Your task to perform on an android device: Open calendar and show me the third week of next month Image 0: 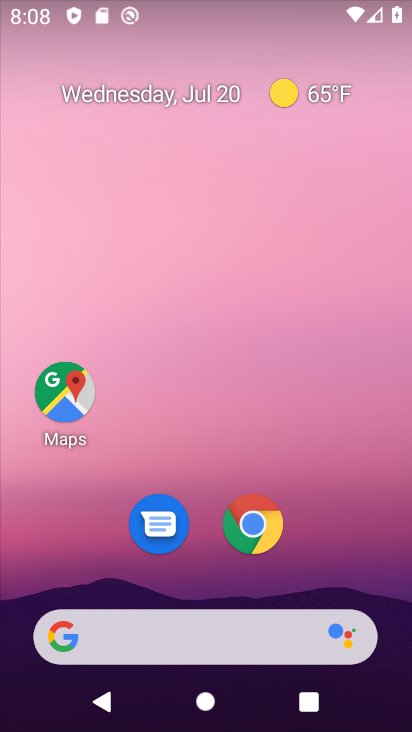
Step 0: drag from (349, 571) to (319, 67)
Your task to perform on an android device: Open calendar and show me the third week of next month Image 1: 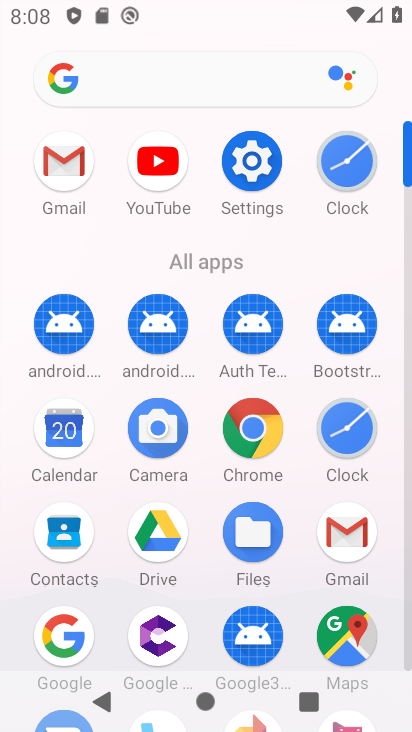
Step 1: click (66, 426)
Your task to perform on an android device: Open calendar and show me the third week of next month Image 2: 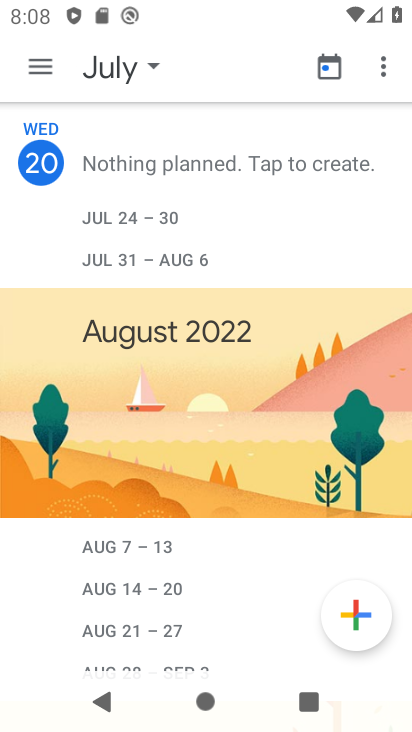
Step 2: click (44, 69)
Your task to perform on an android device: Open calendar and show me the third week of next month Image 3: 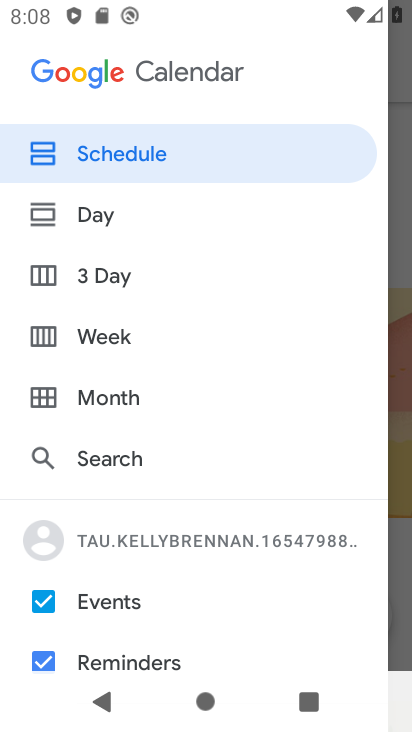
Step 3: click (43, 396)
Your task to perform on an android device: Open calendar and show me the third week of next month Image 4: 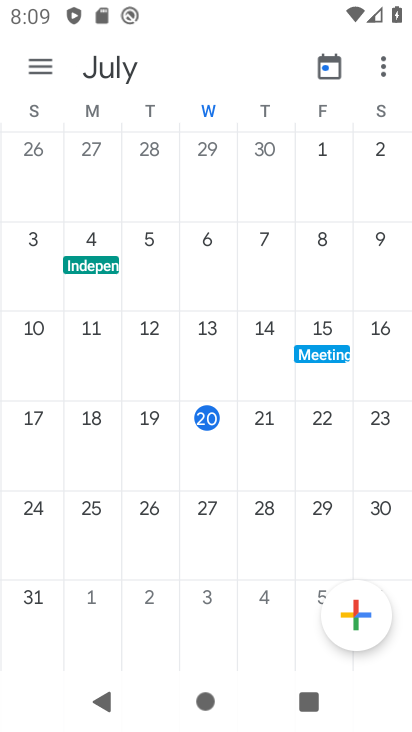
Step 4: drag from (372, 273) to (20, 283)
Your task to perform on an android device: Open calendar and show me the third week of next month Image 5: 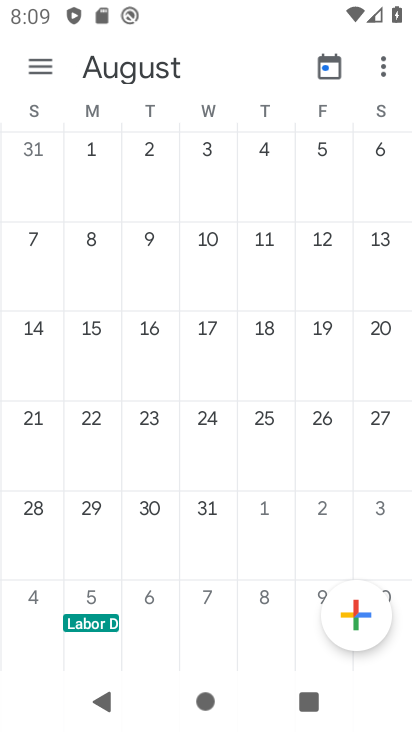
Step 5: click (32, 419)
Your task to perform on an android device: Open calendar and show me the third week of next month Image 6: 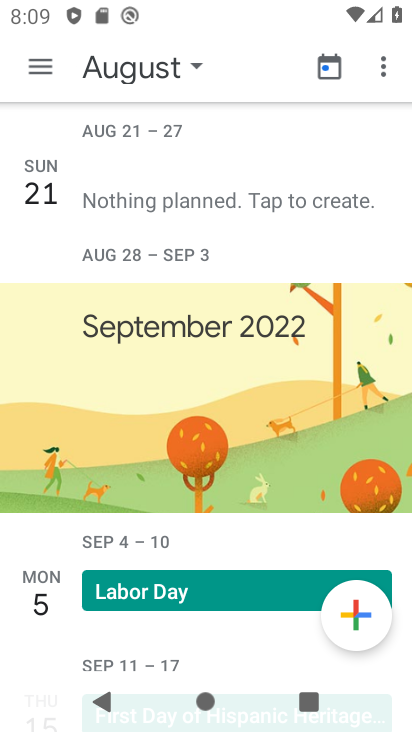
Step 6: click (37, 62)
Your task to perform on an android device: Open calendar and show me the third week of next month Image 7: 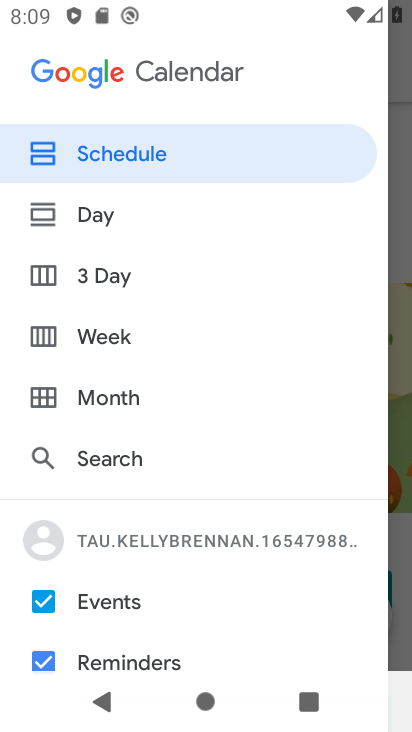
Step 7: click (45, 330)
Your task to perform on an android device: Open calendar and show me the third week of next month Image 8: 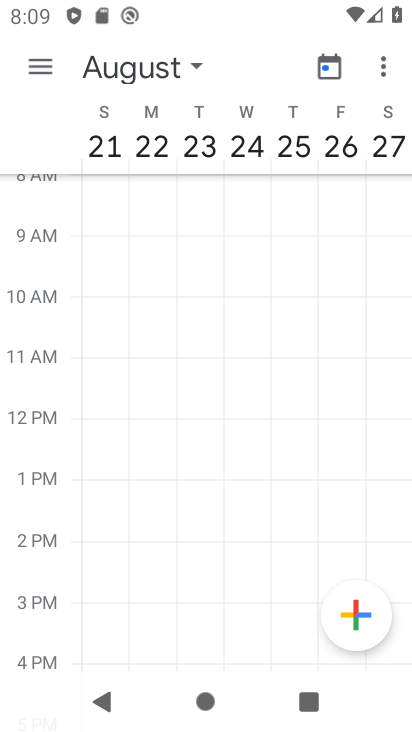
Step 8: task complete